Your task to perform on an android device: open app "Truecaller" (install if not already installed) Image 0: 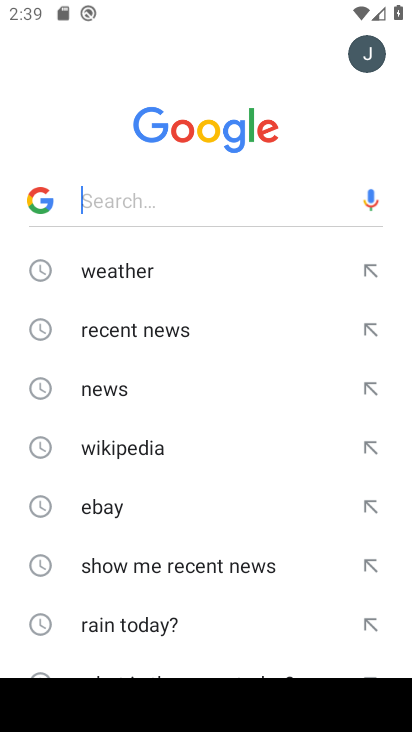
Step 0: press back button
Your task to perform on an android device: open app "Truecaller" (install if not already installed) Image 1: 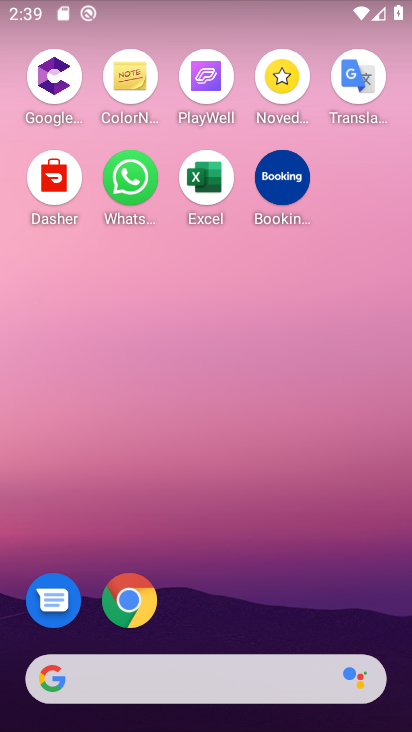
Step 1: drag from (245, 610) to (356, 138)
Your task to perform on an android device: open app "Truecaller" (install if not already installed) Image 2: 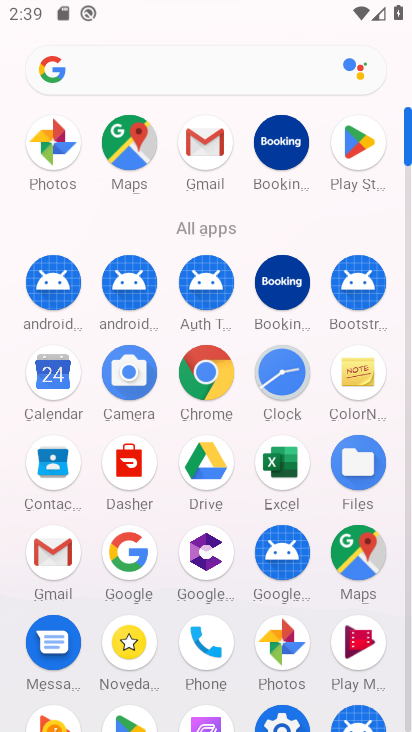
Step 2: click (343, 142)
Your task to perform on an android device: open app "Truecaller" (install if not already installed) Image 3: 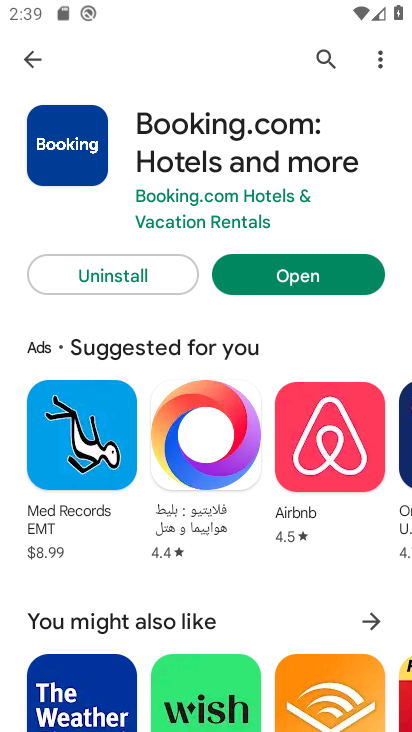
Step 3: click (333, 53)
Your task to perform on an android device: open app "Truecaller" (install if not already installed) Image 4: 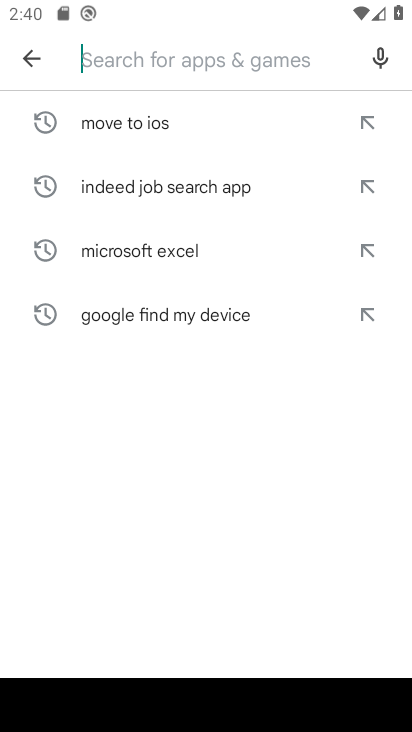
Step 4: click (97, 67)
Your task to perform on an android device: open app "Truecaller" (install if not already installed) Image 5: 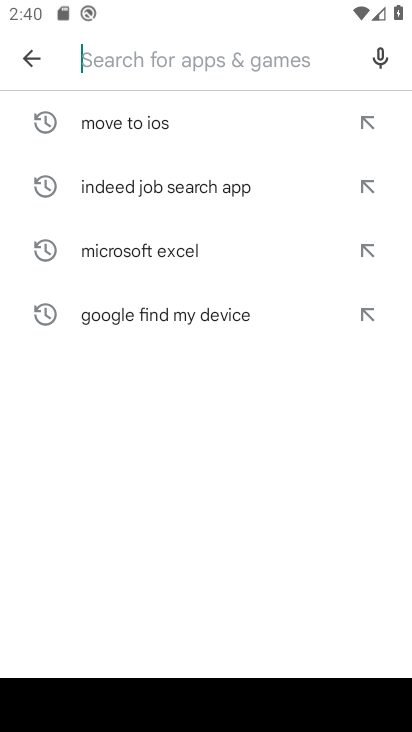
Step 5: type "Truecaller"
Your task to perform on an android device: open app "Truecaller" (install if not already installed) Image 6: 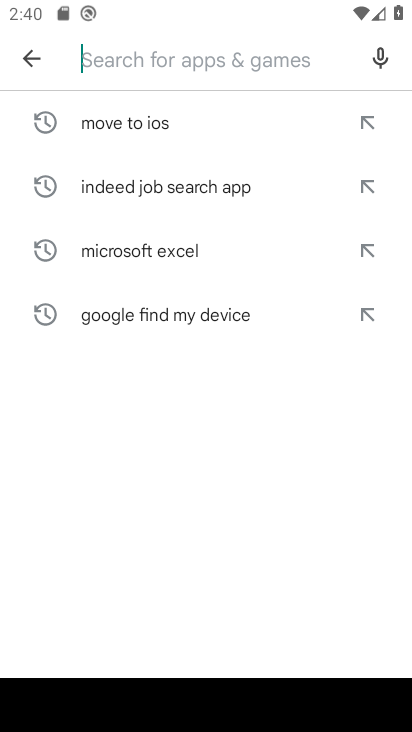
Step 6: click (273, 504)
Your task to perform on an android device: open app "Truecaller" (install if not already installed) Image 7: 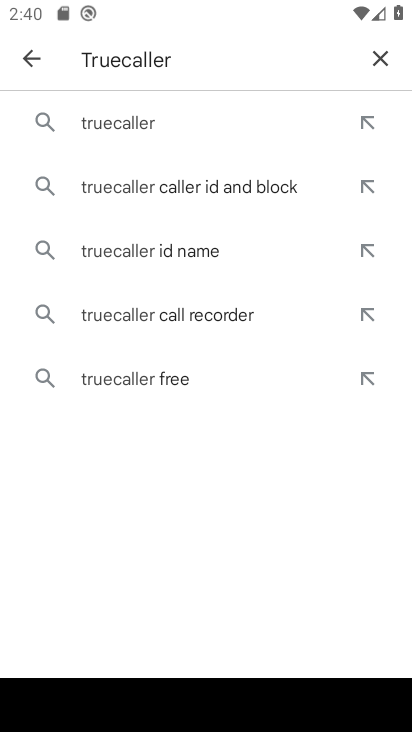
Step 7: click (201, 126)
Your task to perform on an android device: open app "Truecaller" (install if not already installed) Image 8: 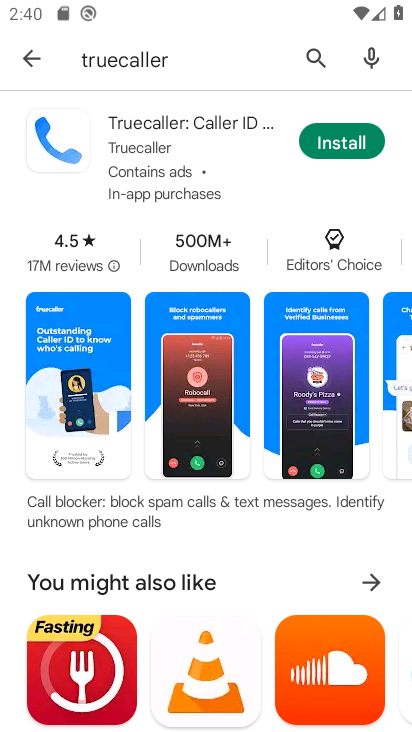
Step 8: click (349, 141)
Your task to perform on an android device: open app "Truecaller" (install if not already installed) Image 9: 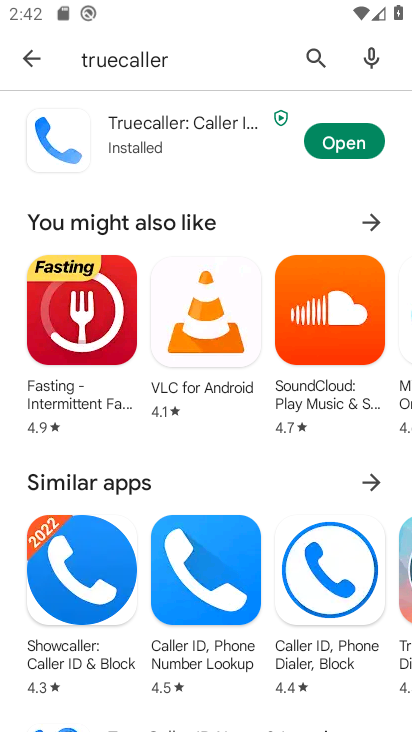
Step 9: click (334, 137)
Your task to perform on an android device: open app "Truecaller" (install if not already installed) Image 10: 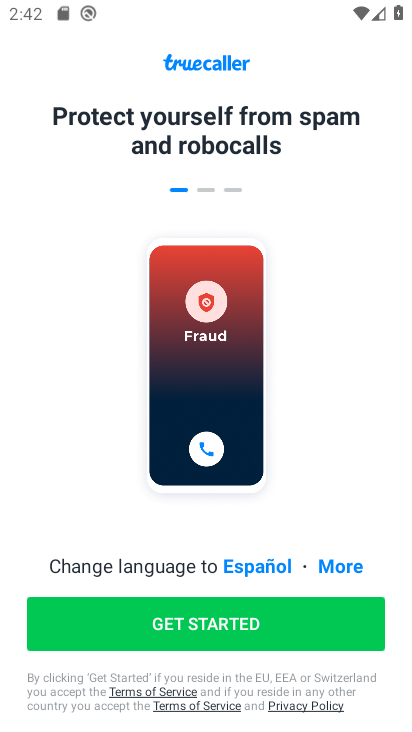
Step 10: task complete